Your task to perform on an android device: turn on wifi Image 0: 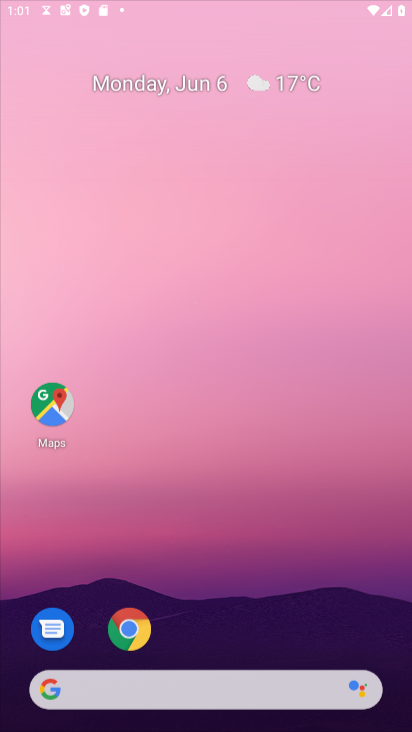
Step 0: click (109, 104)
Your task to perform on an android device: turn on wifi Image 1: 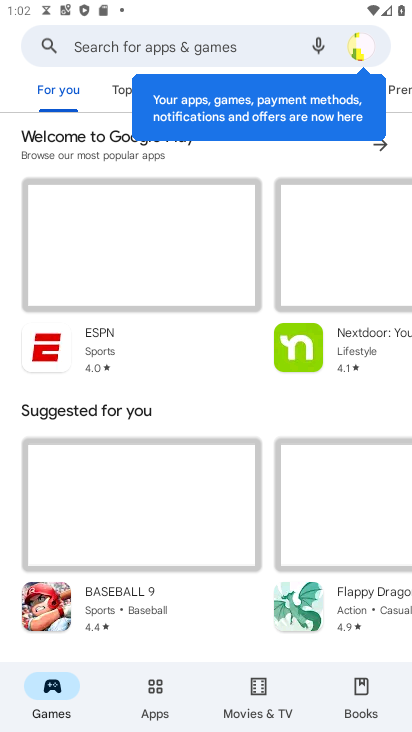
Step 1: press back button
Your task to perform on an android device: turn on wifi Image 2: 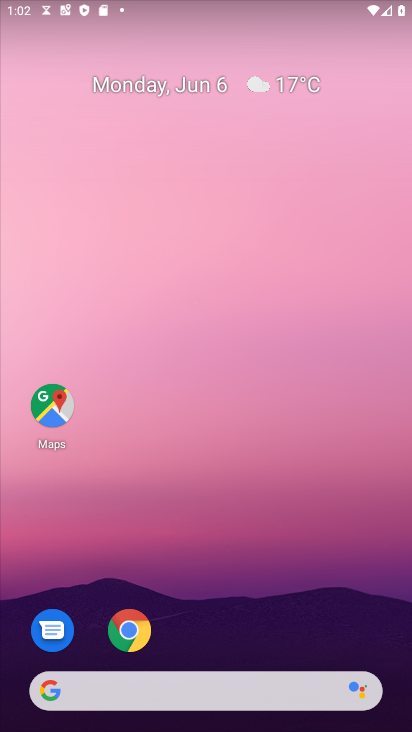
Step 2: drag from (264, 555) to (185, 73)
Your task to perform on an android device: turn on wifi Image 3: 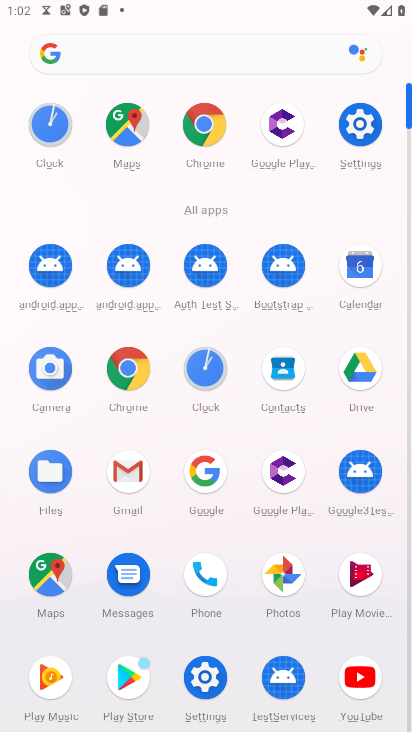
Step 3: click (354, 128)
Your task to perform on an android device: turn on wifi Image 4: 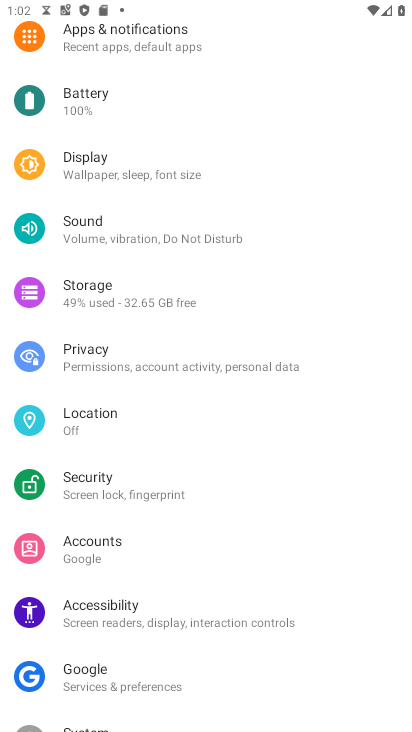
Step 4: drag from (121, 92) to (123, 587)
Your task to perform on an android device: turn on wifi Image 5: 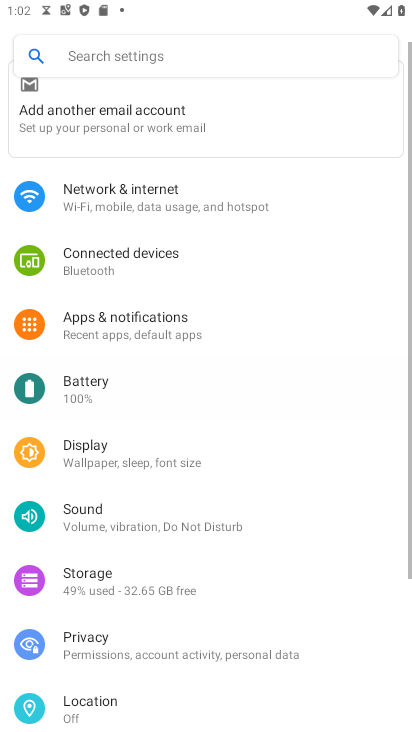
Step 5: drag from (118, 195) to (136, 574)
Your task to perform on an android device: turn on wifi Image 6: 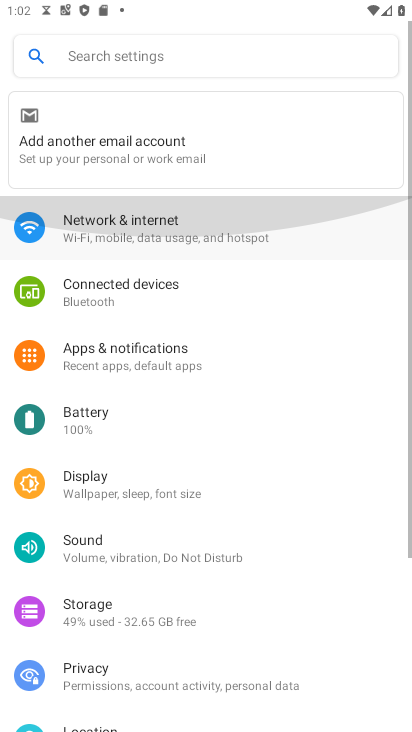
Step 6: drag from (90, 257) to (100, 603)
Your task to perform on an android device: turn on wifi Image 7: 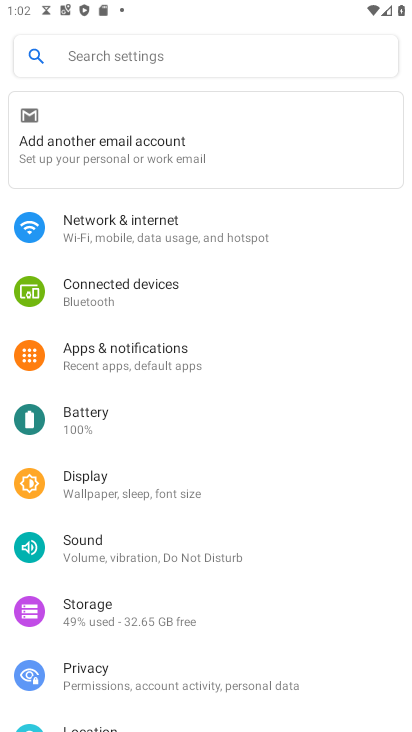
Step 7: click (153, 234)
Your task to perform on an android device: turn on wifi Image 8: 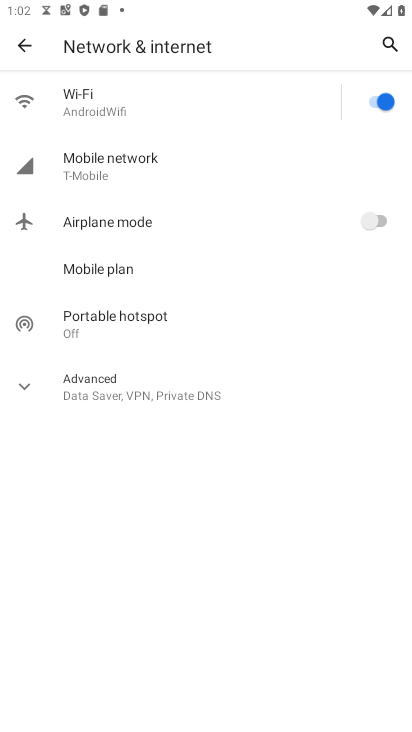
Step 8: task complete